Your task to perform on an android device: Search for Italian restaurants on Maps Image 0: 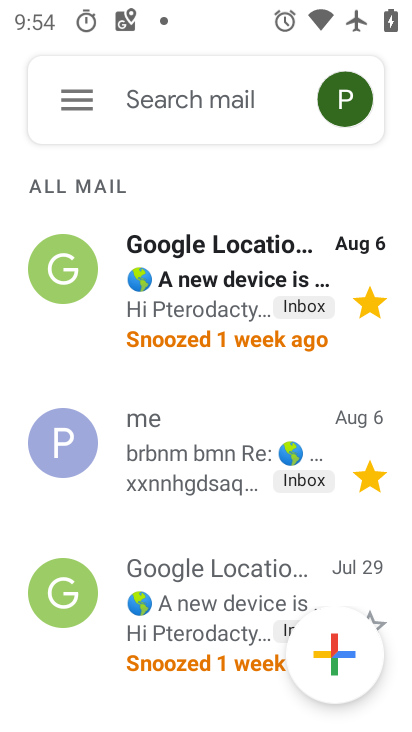
Step 0: press home button
Your task to perform on an android device: Search for Italian restaurants on Maps Image 1: 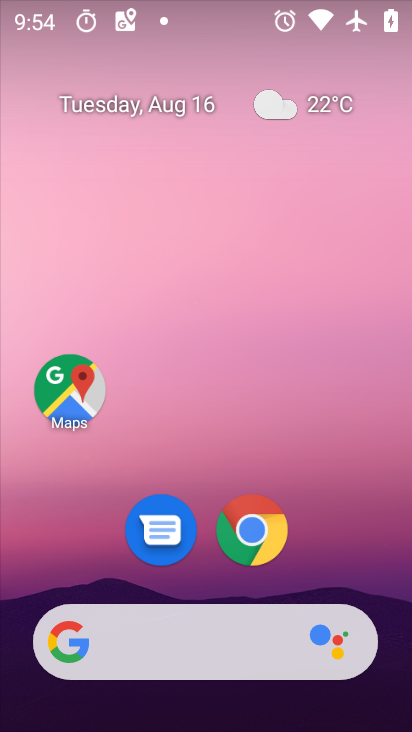
Step 1: drag from (339, 538) to (320, 45)
Your task to perform on an android device: Search for Italian restaurants on Maps Image 2: 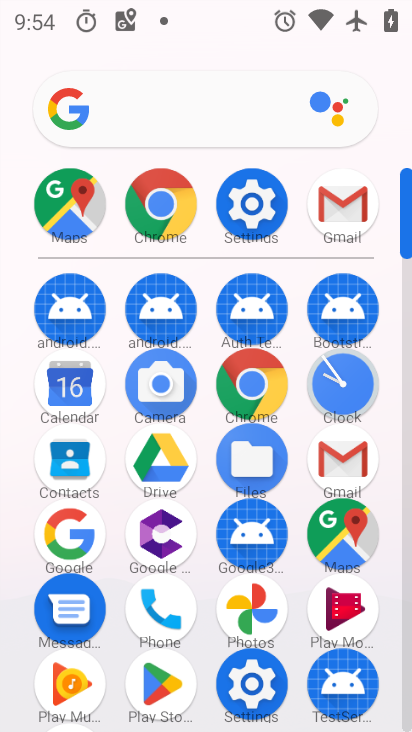
Step 2: click (338, 535)
Your task to perform on an android device: Search for Italian restaurants on Maps Image 3: 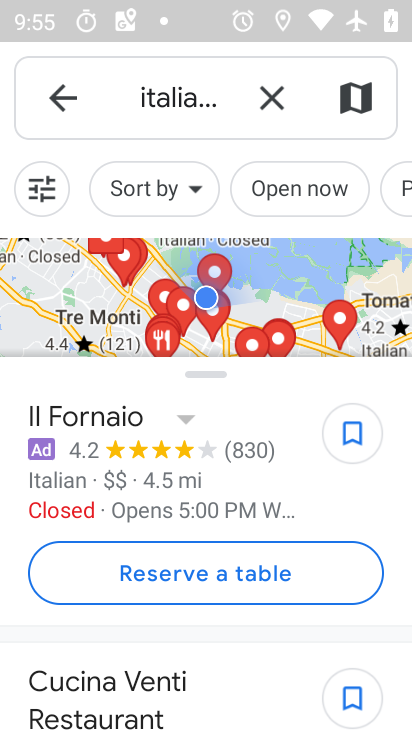
Step 3: task complete